Your task to perform on an android device: open app "Grab" Image 0: 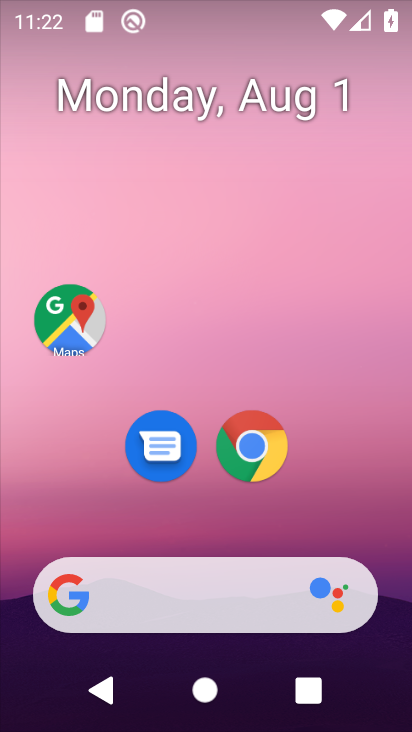
Step 0: drag from (193, 523) to (206, 115)
Your task to perform on an android device: open app "Grab" Image 1: 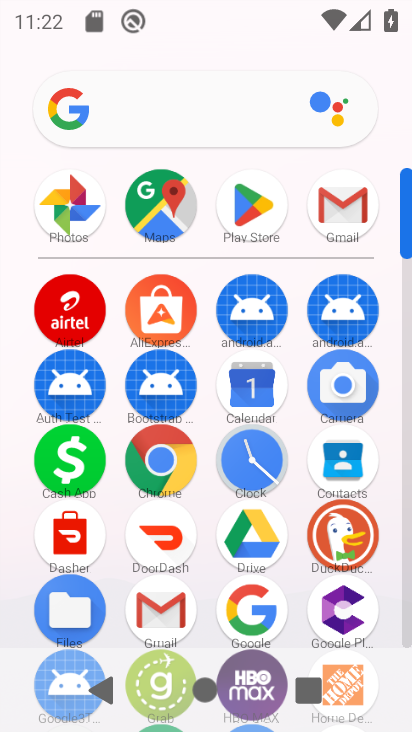
Step 1: click (230, 206)
Your task to perform on an android device: open app "Grab" Image 2: 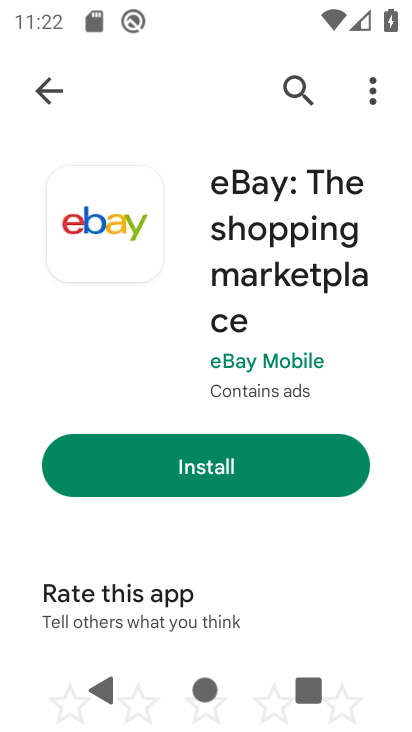
Step 2: click (293, 86)
Your task to perform on an android device: open app "Grab" Image 3: 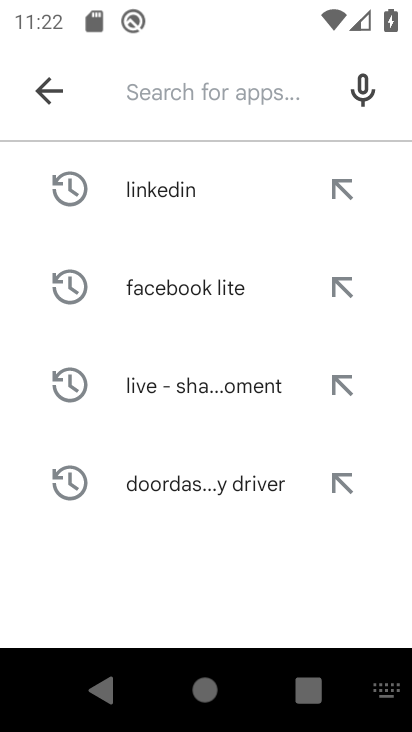
Step 3: type "Grab"
Your task to perform on an android device: open app "Grab" Image 4: 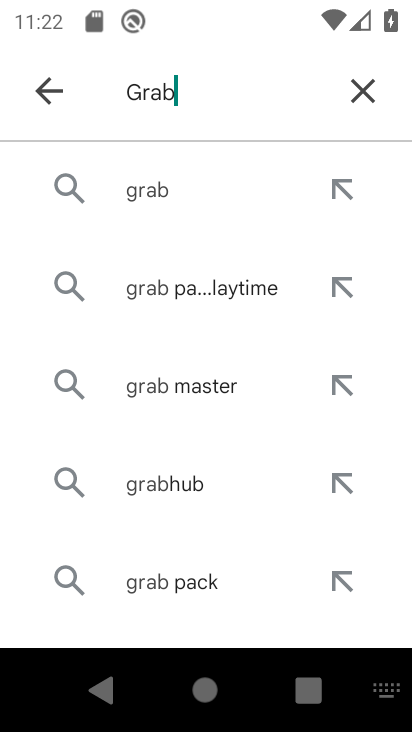
Step 4: click (219, 175)
Your task to perform on an android device: open app "Grab" Image 5: 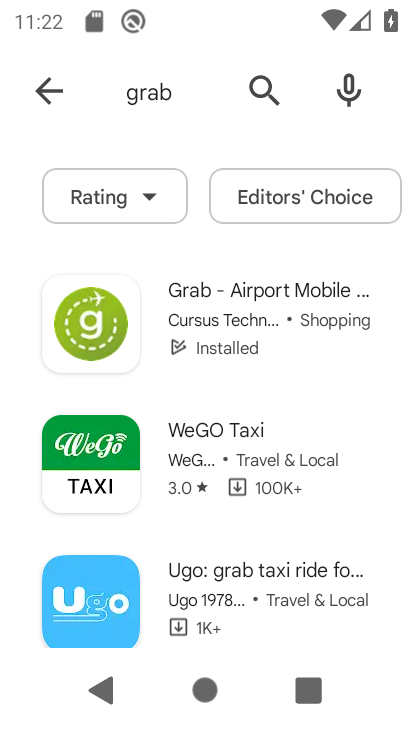
Step 5: click (261, 316)
Your task to perform on an android device: open app "Grab" Image 6: 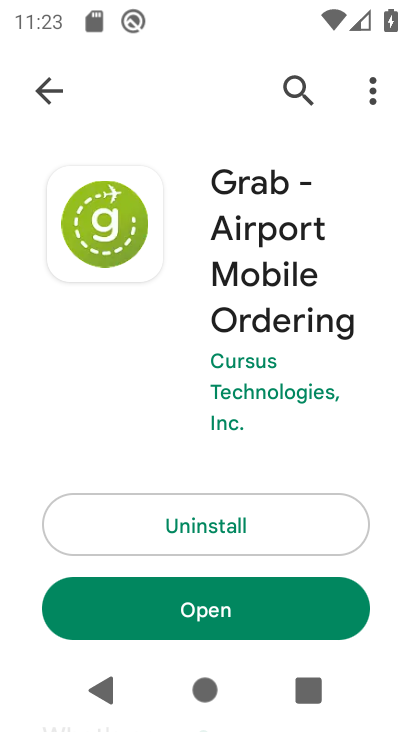
Step 6: click (292, 622)
Your task to perform on an android device: open app "Grab" Image 7: 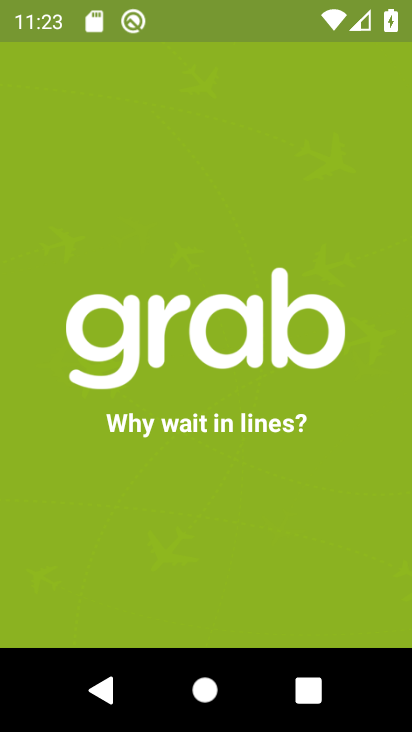
Step 7: task complete